Your task to perform on an android device: turn on data saver in the chrome app Image 0: 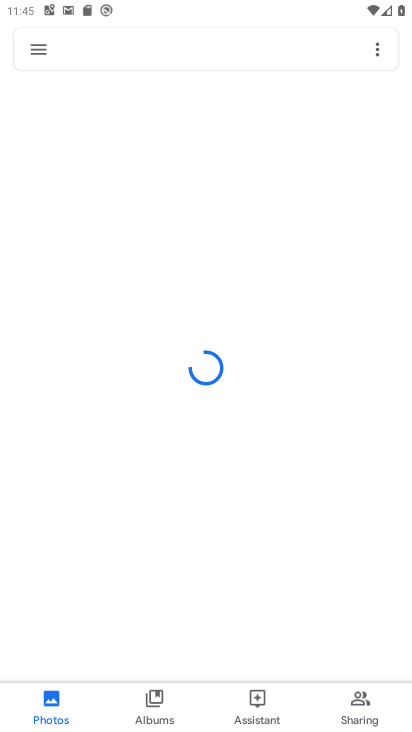
Step 0: press home button
Your task to perform on an android device: turn on data saver in the chrome app Image 1: 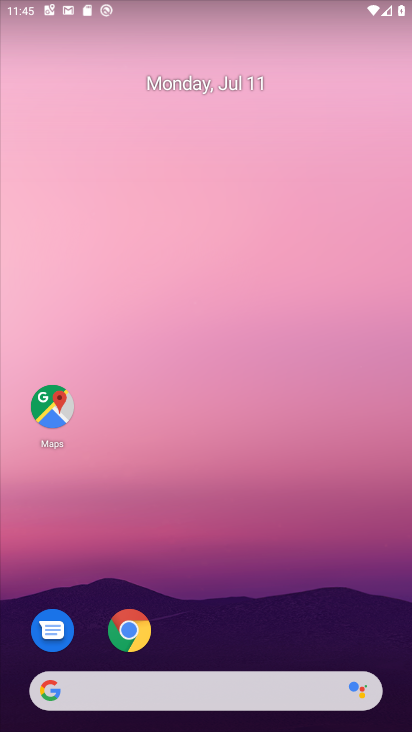
Step 1: drag from (197, 647) to (222, 189)
Your task to perform on an android device: turn on data saver in the chrome app Image 2: 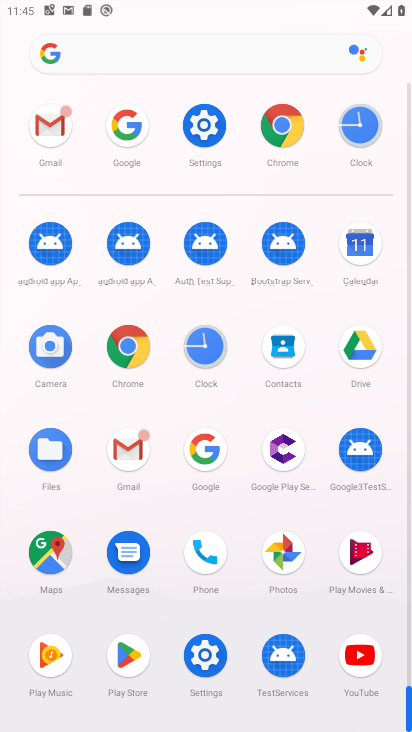
Step 2: click (136, 363)
Your task to perform on an android device: turn on data saver in the chrome app Image 3: 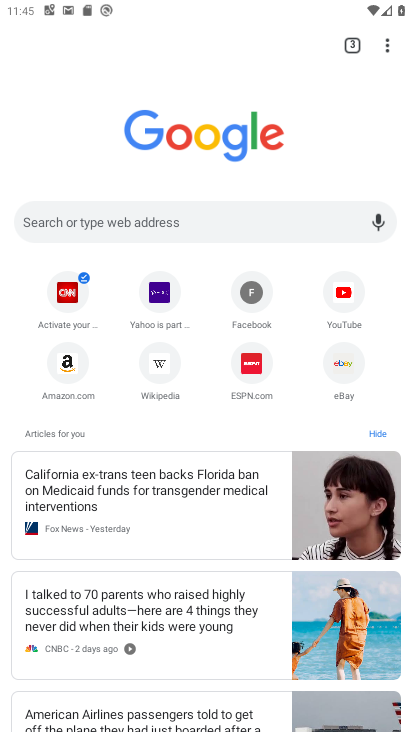
Step 3: click (386, 50)
Your task to perform on an android device: turn on data saver in the chrome app Image 4: 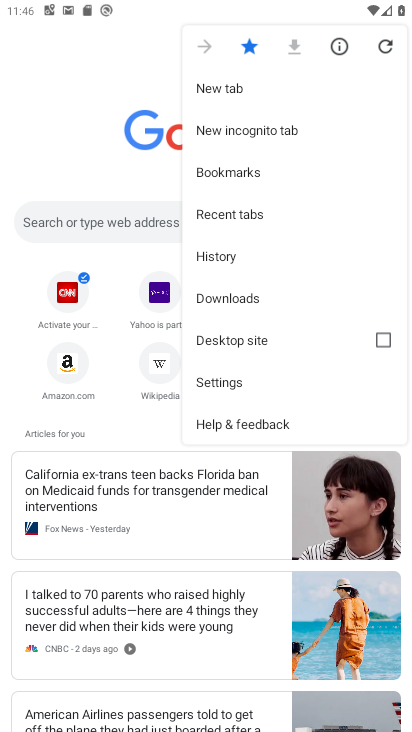
Step 4: click (228, 378)
Your task to perform on an android device: turn on data saver in the chrome app Image 5: 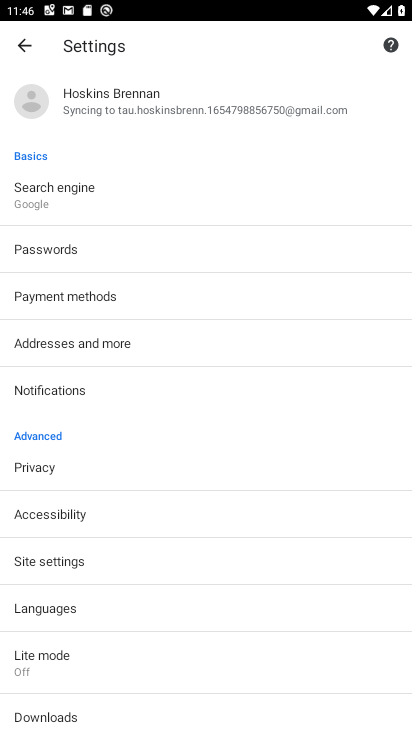
Step 5: click (72, 659)
Your task to perform on an android device: turn on data saver in the chrome app Image 6: 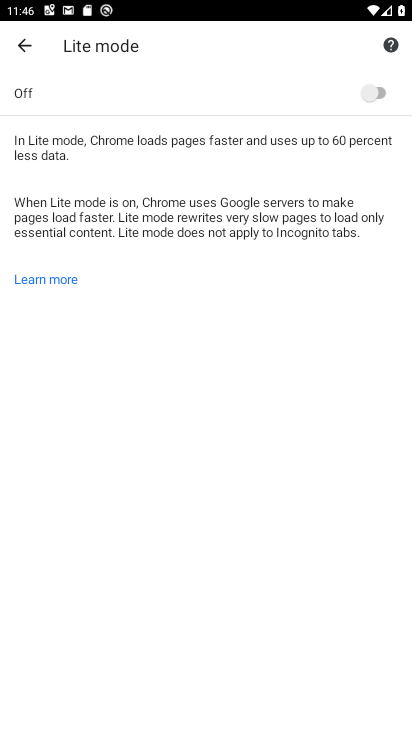
Step 6: click (387, 94)
Your task to perform on an android device: turn on data saver in the chrome app Image 7: 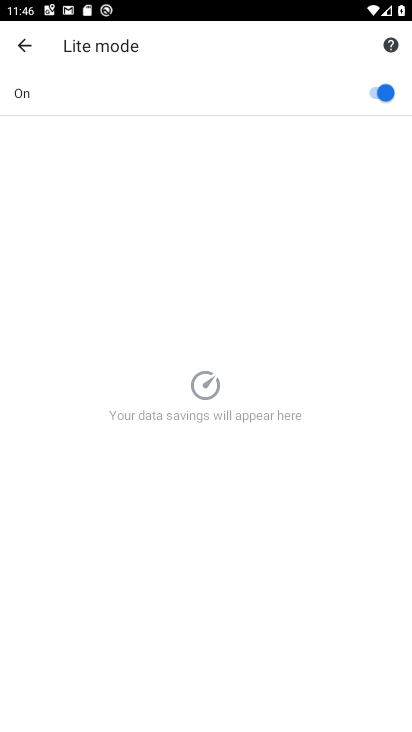
Step 7: task complete